Your task to perform on an android device: Add "razer blade" to the cart on target.com Image 0: 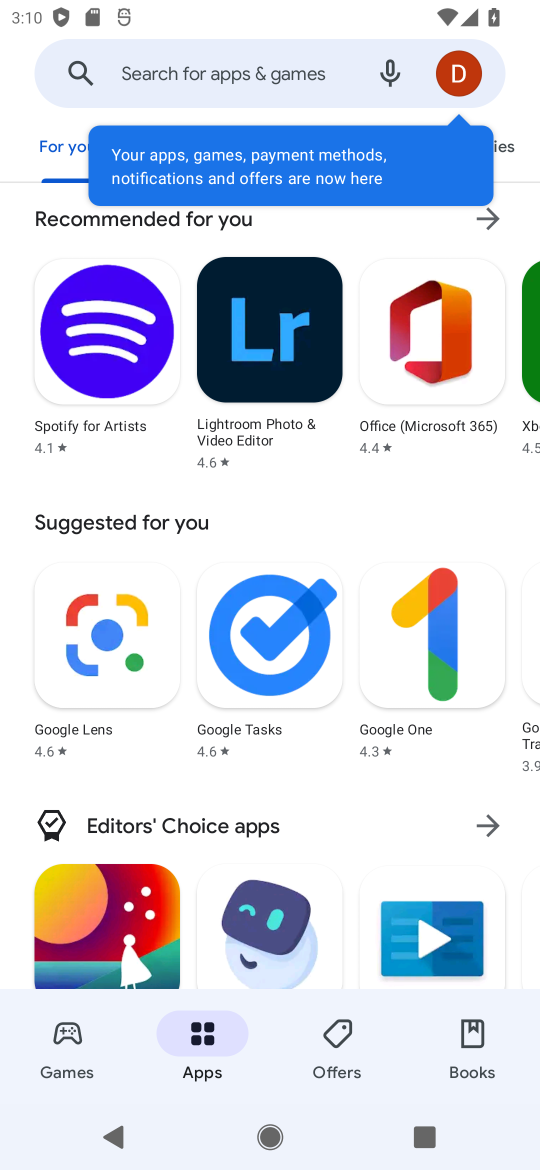
Step 0: press home button
Your task to perform on an android device: Add "razer blade" to the cart on target.com Image 1: 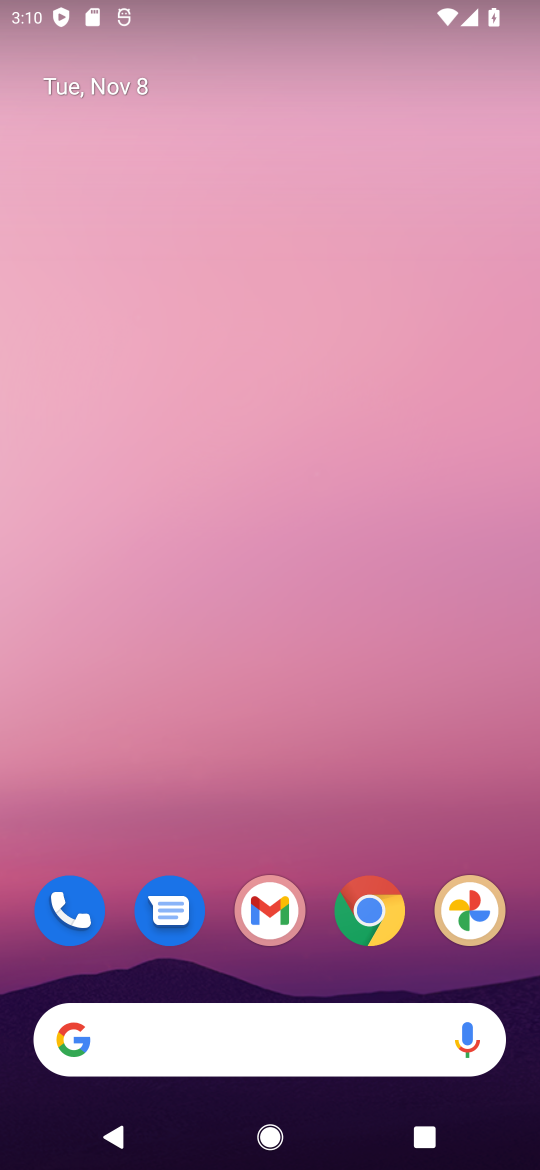
Step 1: drag from (335, 983) to (301, 131)
Your task to perform on an android device: Add "razer blade" to the cart on target.com Image 2: 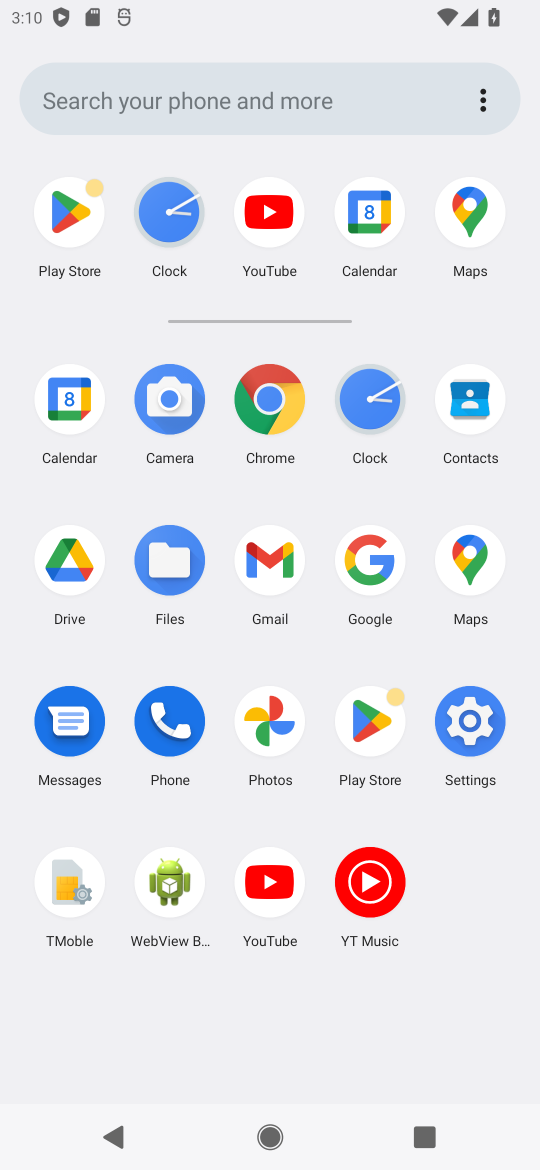
Step 2: click (282, 406)
Your task to perform on an android device: Add "razer blade" to the cart on target.com Image 3: 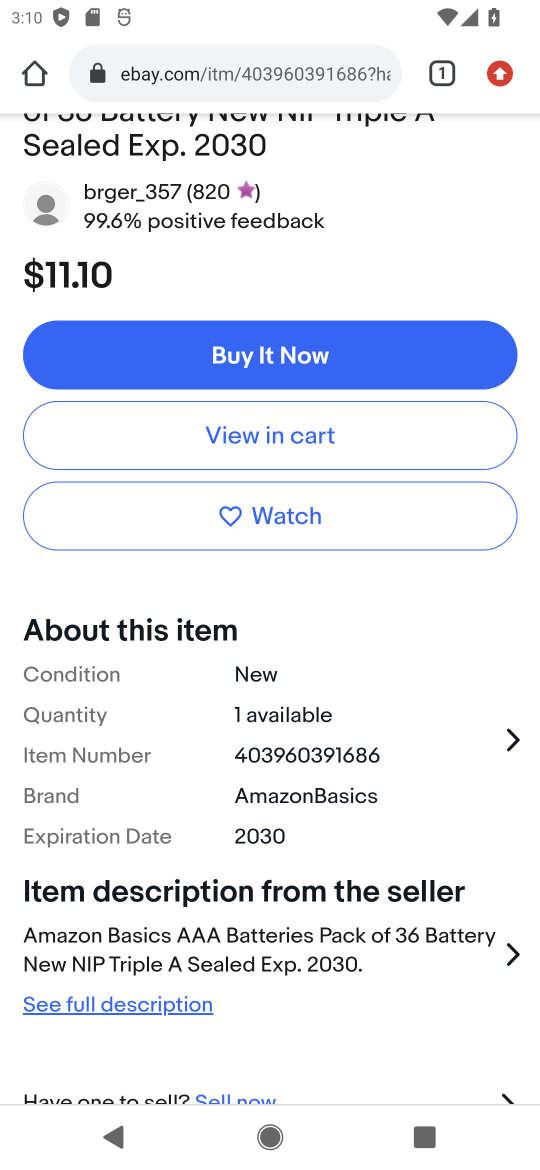
Step 3: click (308, 78)
Your task to perform on an android device: Add "razer blade" to the cart on target.com Image 4: 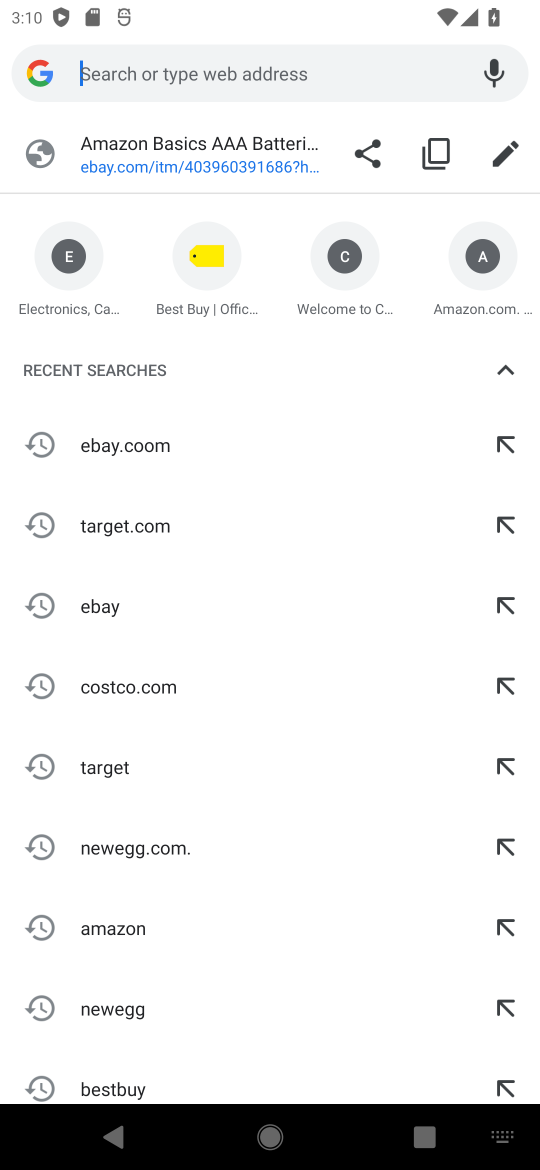
Step 4: type "target.com"
Your task to perform on an android device: Add "razer blade" to the cart on target.com Image 5: 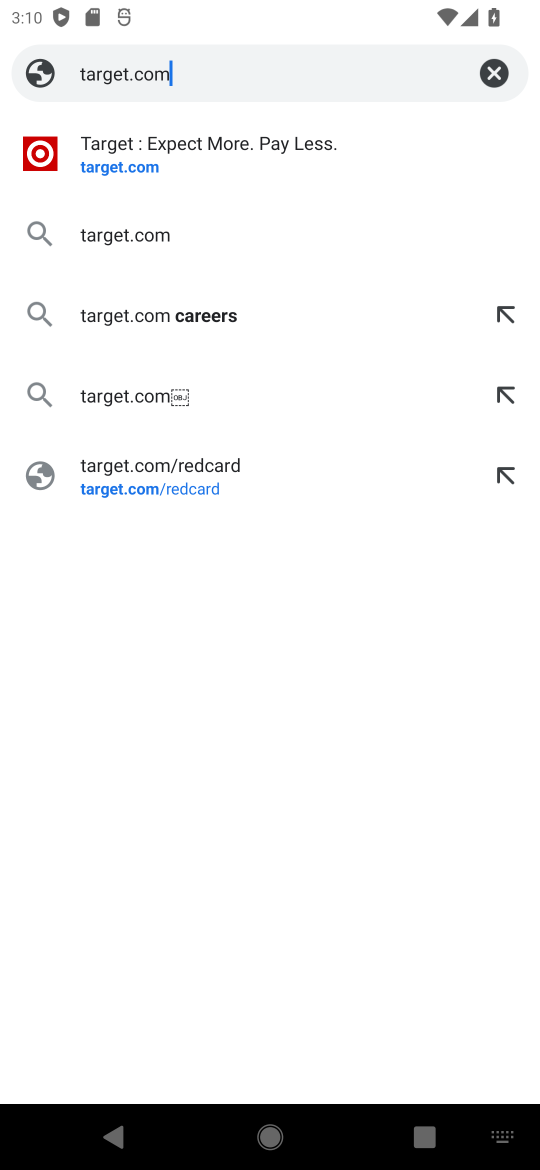
Step 5: press enter
Your task to perform on an android device: Add "razer blade" to the cart on target.com Image 6: 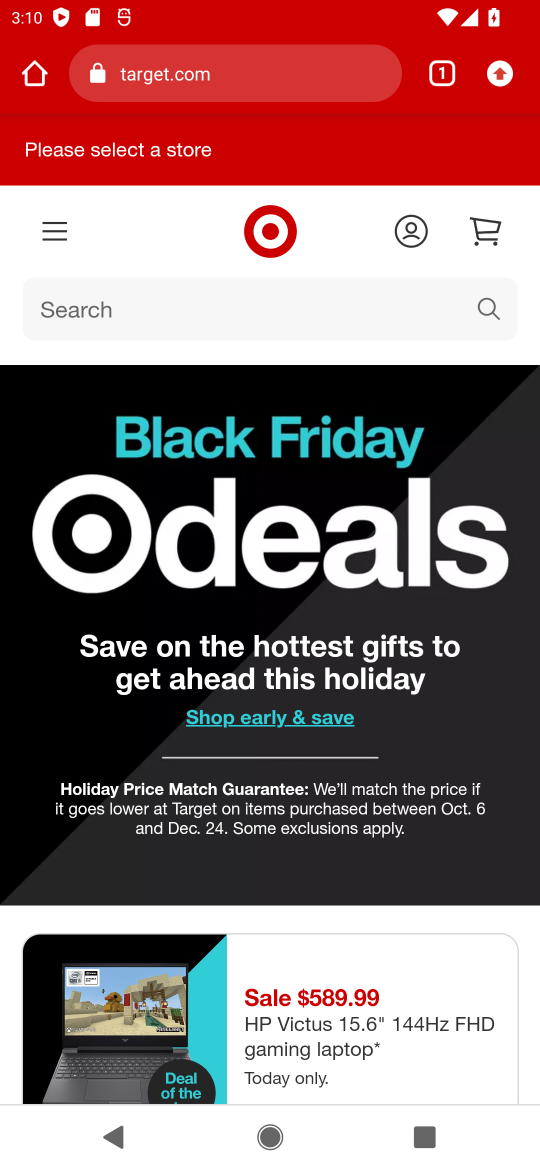
Step 6: drag from (378, 992) to (369, 354)
Your task to perform on an android device: Add "razer blade" to the cart on target.com Image 7: 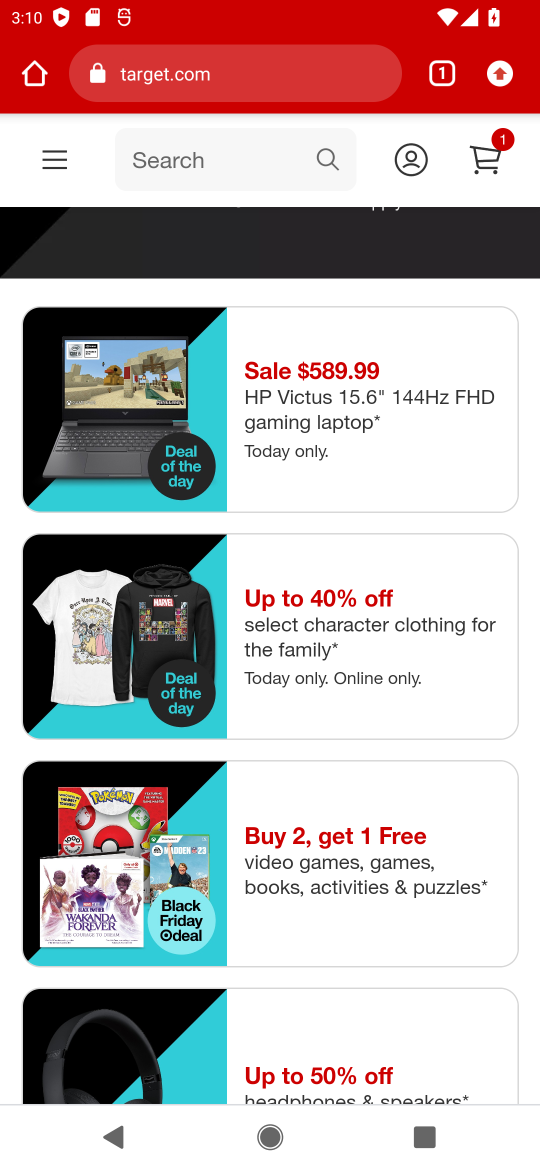
Step 7: drag from (364, 278) to (359, 643)
Your task to perform on an android device: Add "razer blade" to the cart on target.com Image 8: 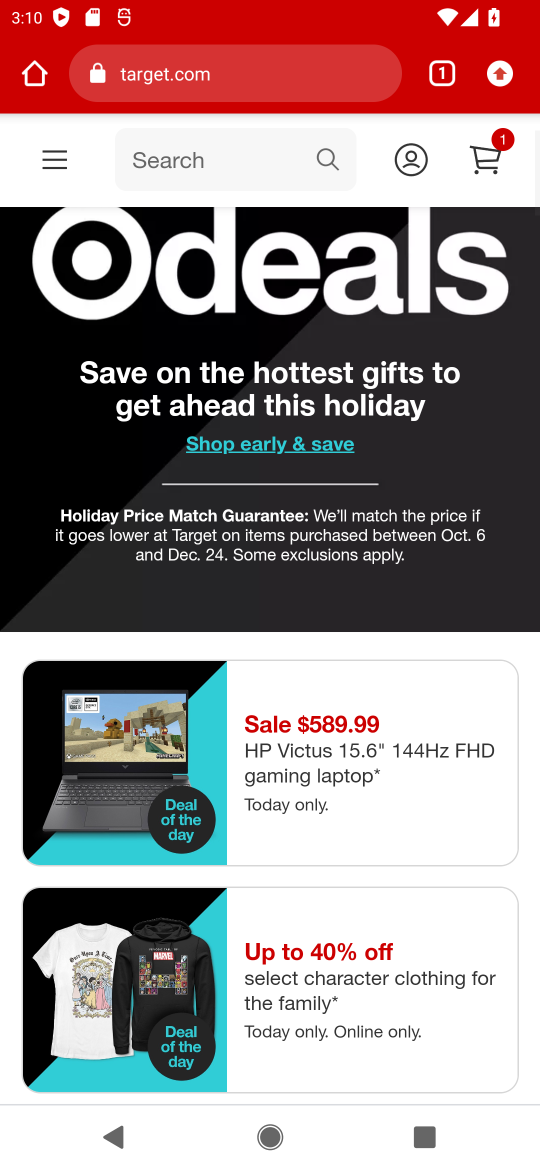
Step 8: click (247, 173)
Your task to perform on an android device: Add "razer blade" to the cart on target.com Image 9: 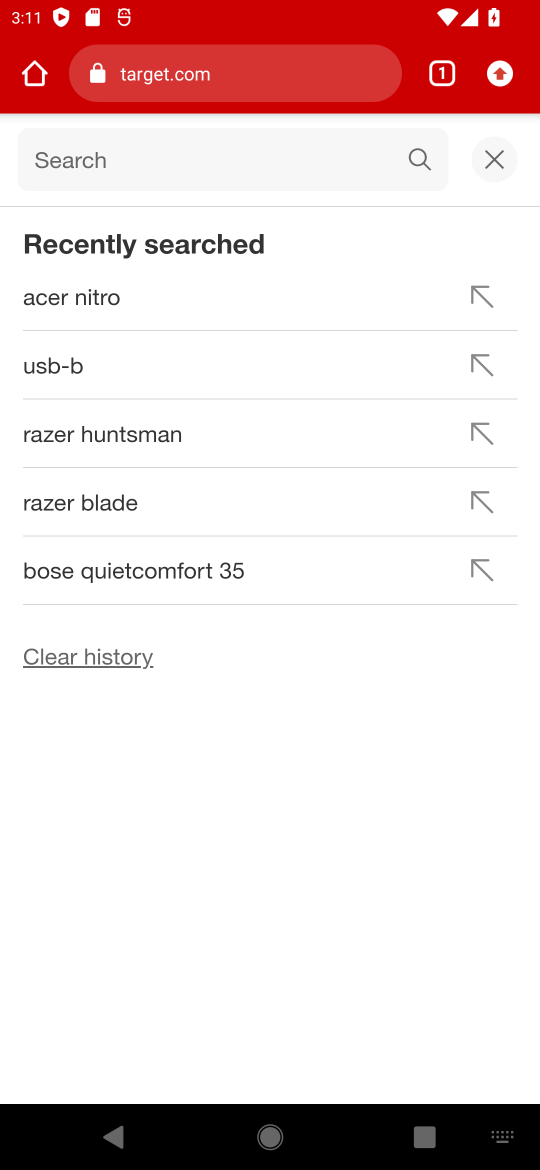
Step 9: type "razer blade"
Your task to perform on an android device: Add "razer blade" to the cart on target.com Image 10: 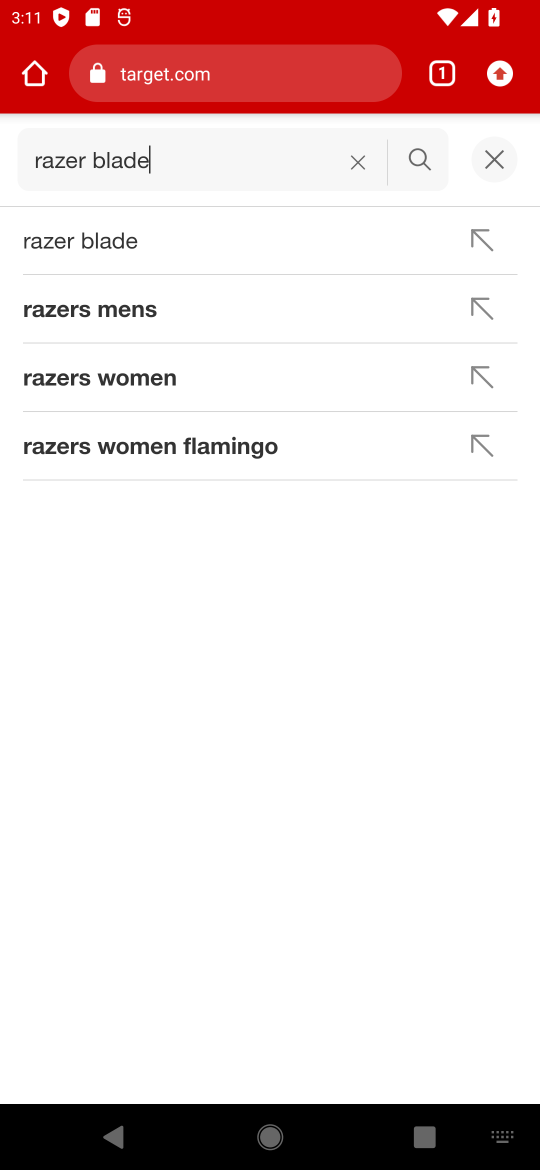
Step 10: press enter
Your task to perform on an android device: Add "razer blade" to the cart on target.com Image 11: 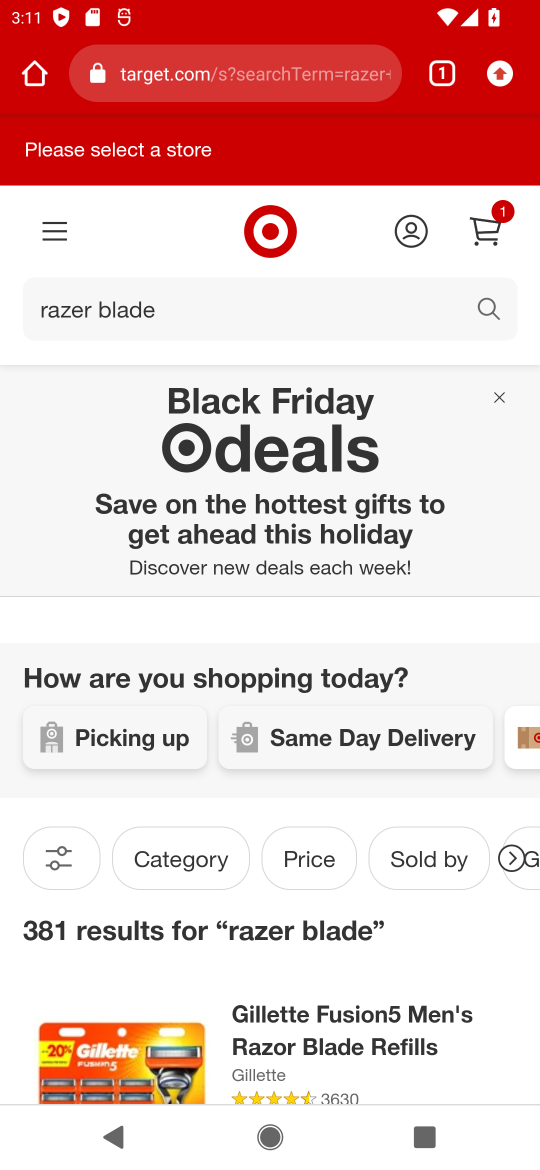
Step 11: task complete